Your task to perform on an android device: install app "Chime – Mobile Banking" Image 0: 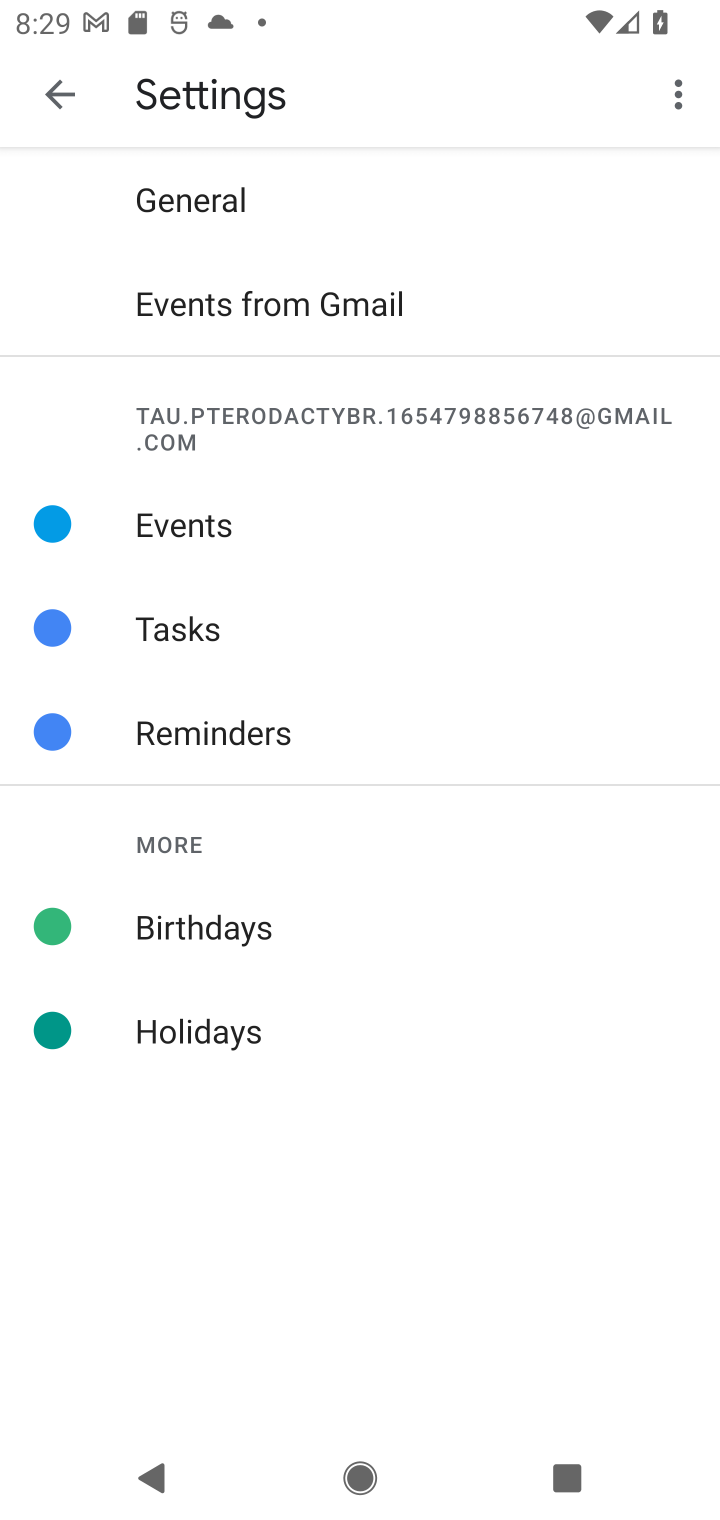
Step 0: press back button
Your task to perform on an android device: install app "Chime – Mobile Banking" Image 1: 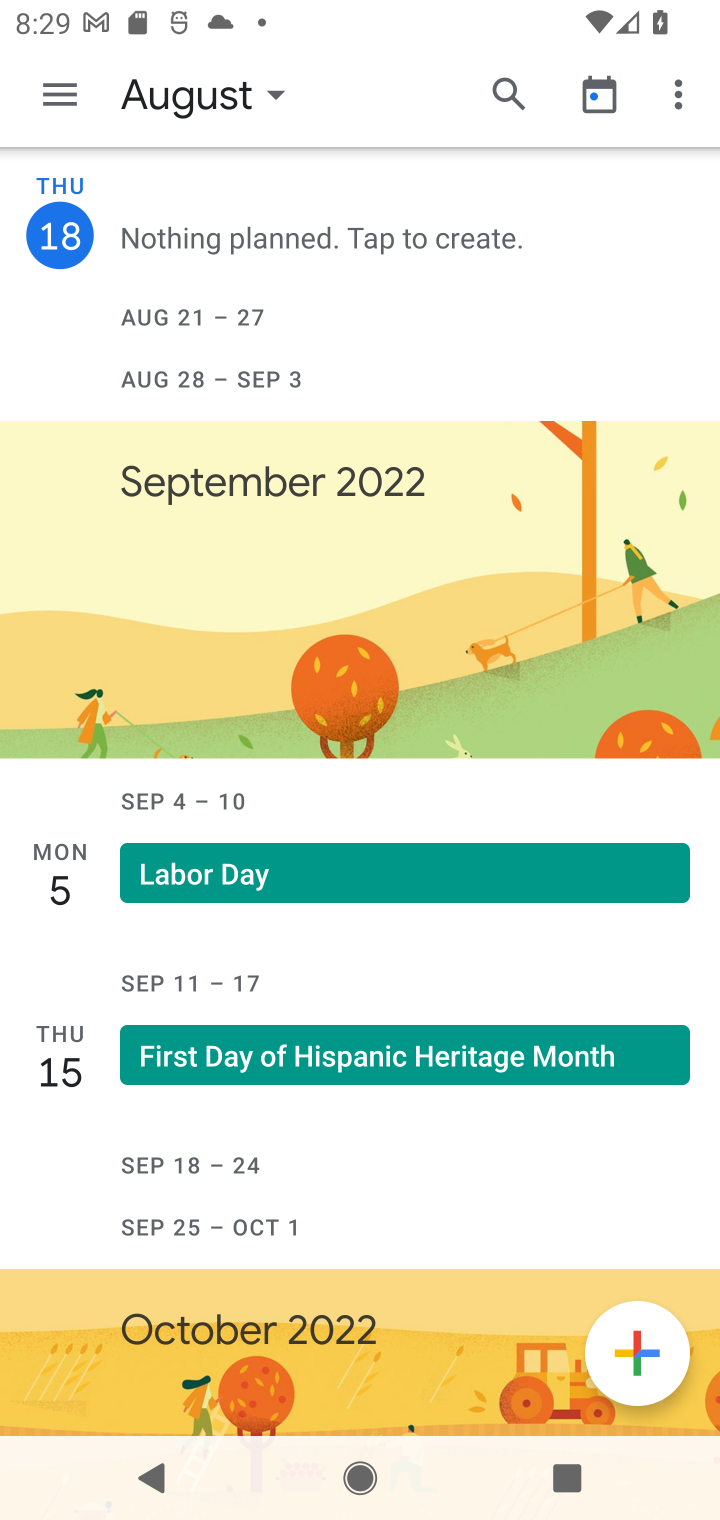
Step 1: press back button
Your task to perform on an android device: install app "Chime – Mobile Banking" Image 2: 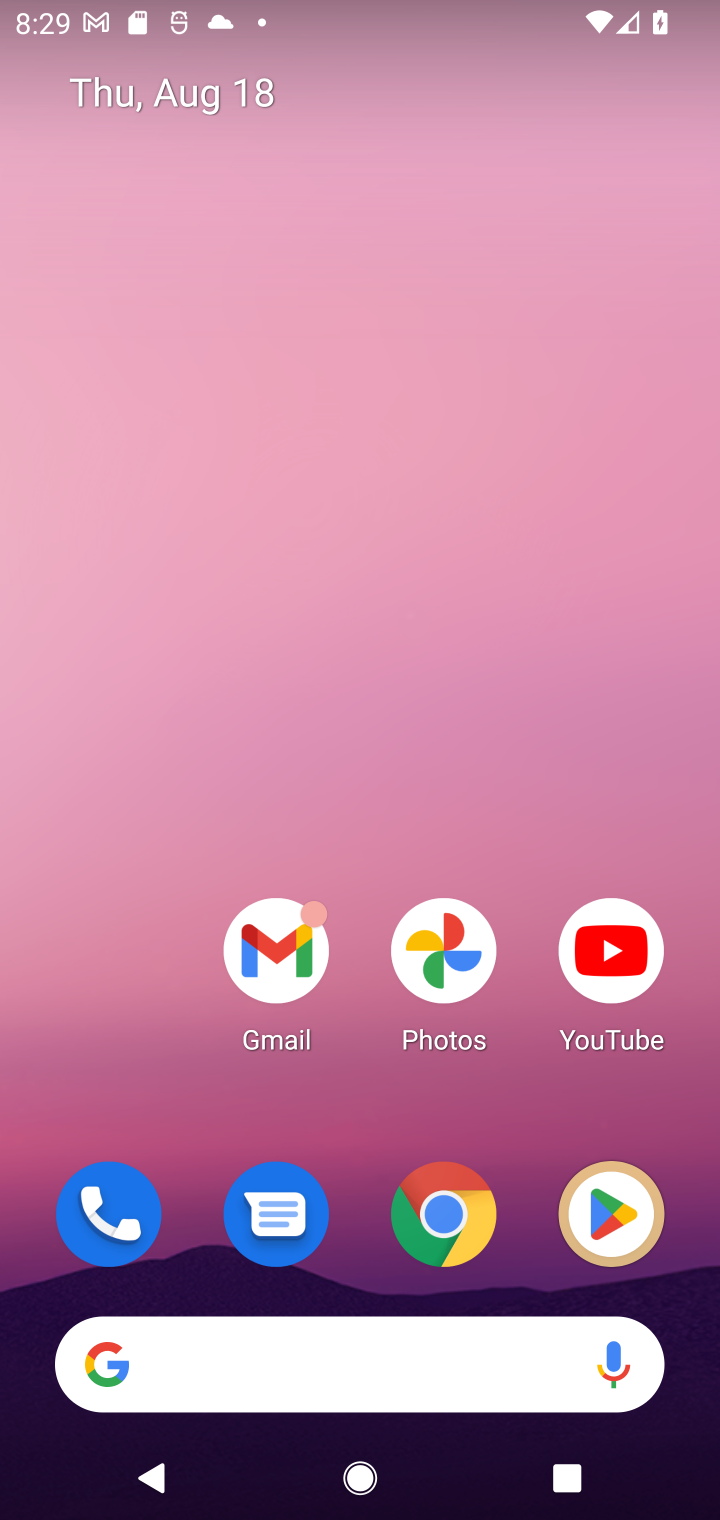
Step 2: click (629, 1239)
Your task to perform on an android device: install app "Chime – Mobile Banking" Image 3: 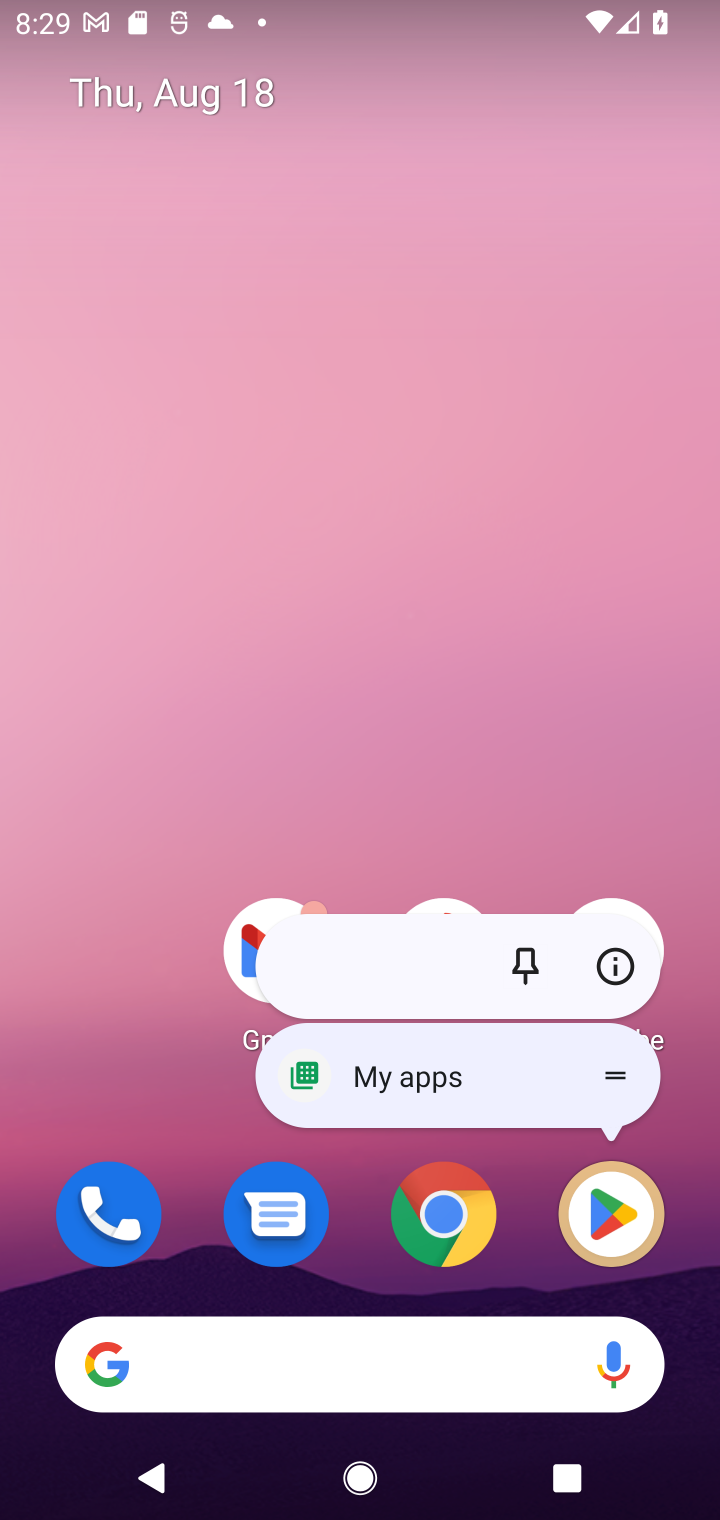
Step 3: click (615, 1217)
Your task to perform on an android device: install app "Chime – Mobile Banking" Image 4: 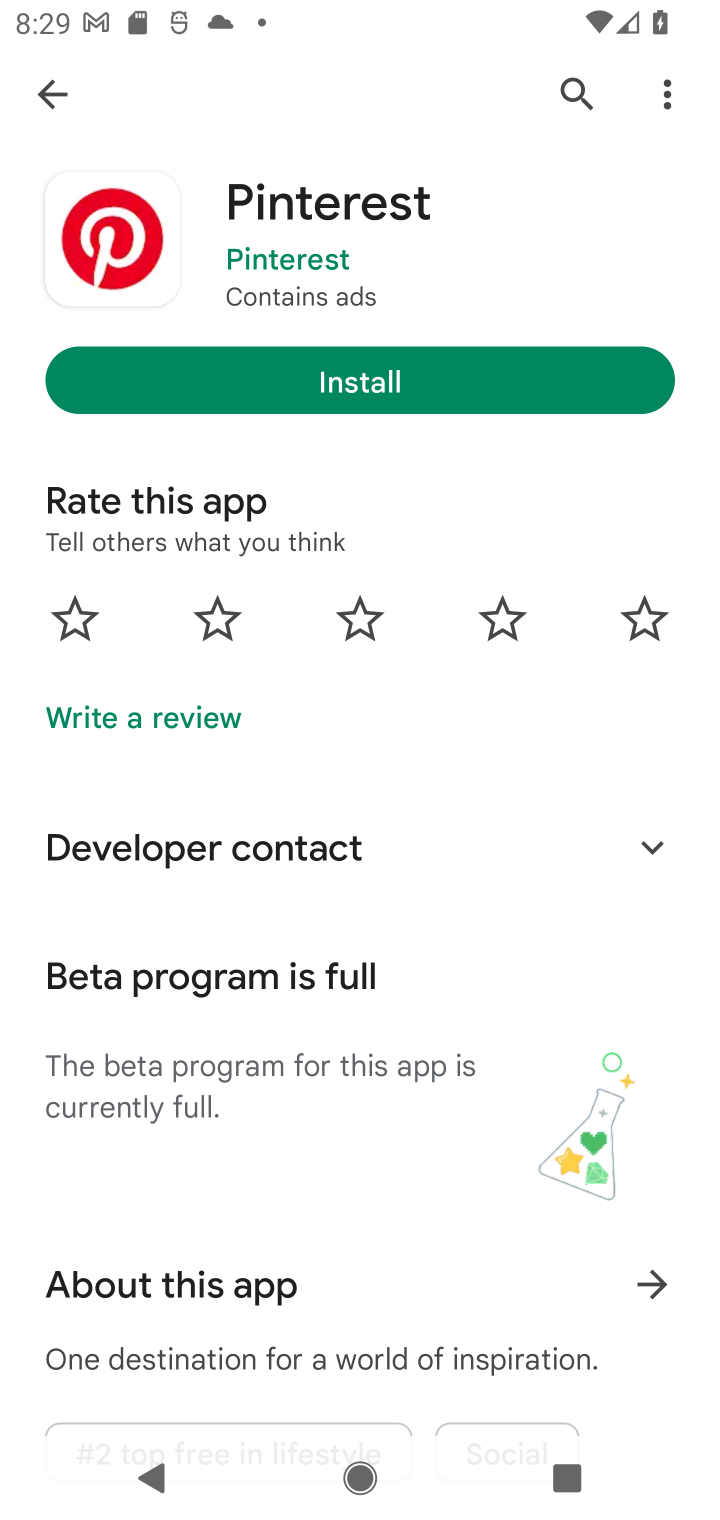
Step 4: click (572, 82)
Your task to perform on an android device: install app "Chime – Mobile Banking" Image 5: 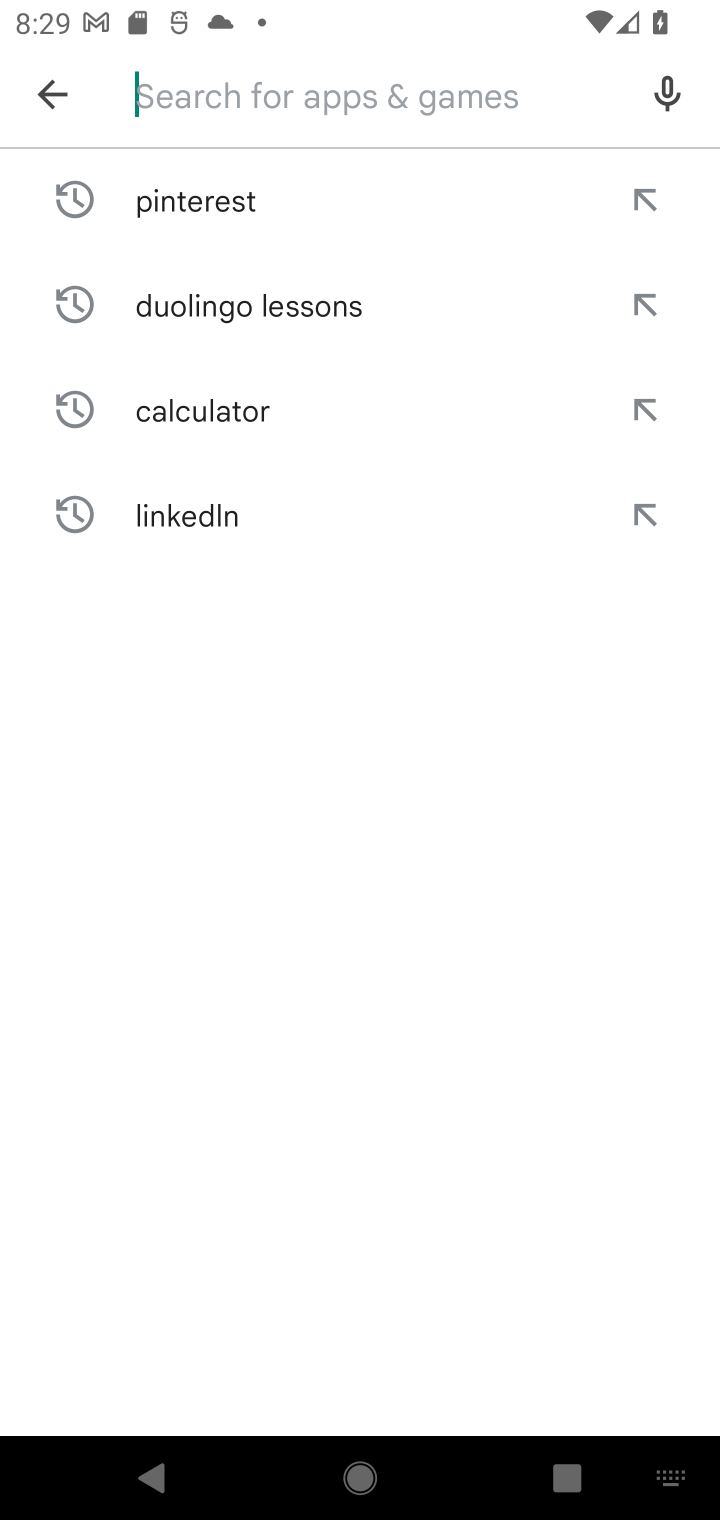
Step 5: click (285, 125)
Your task to perform on an android device: install app "Chime – Mobile Banking" Image 6: 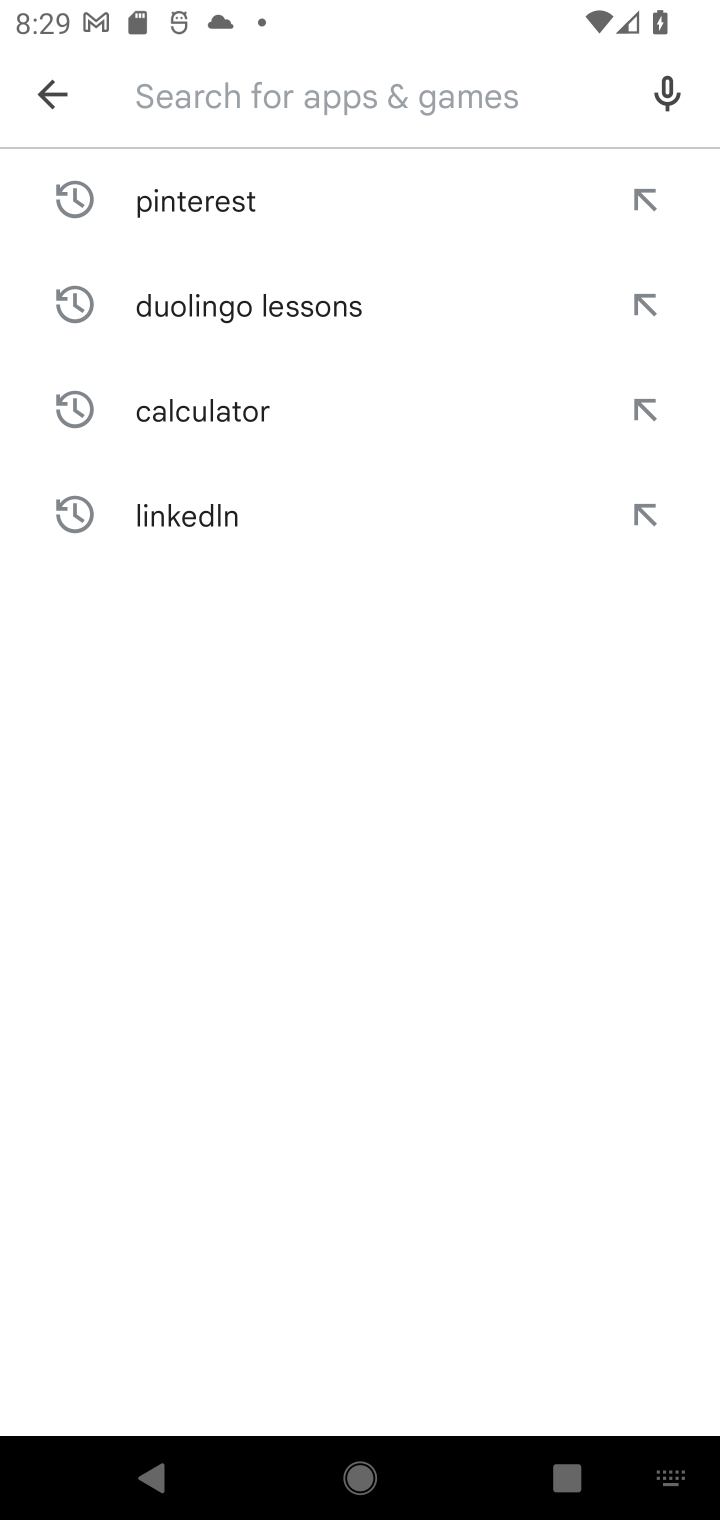
Step 6: type "chime"
Your task to perform on an android device: install app "Chime – Mobile Banking" Image 7: 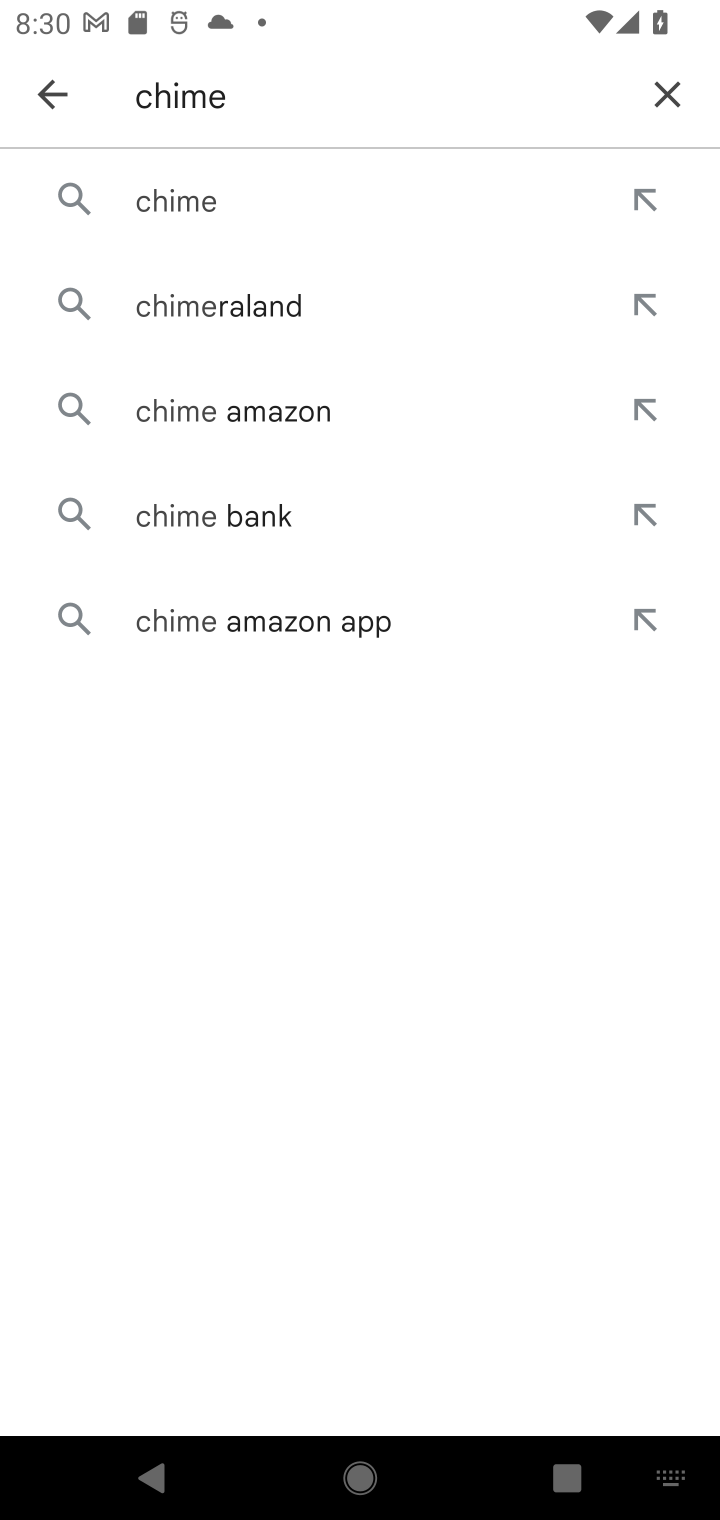
Step 7: click (224, 207)
Your task to perform on an android device: install app "Chime – Mobile Banking" Image 8: 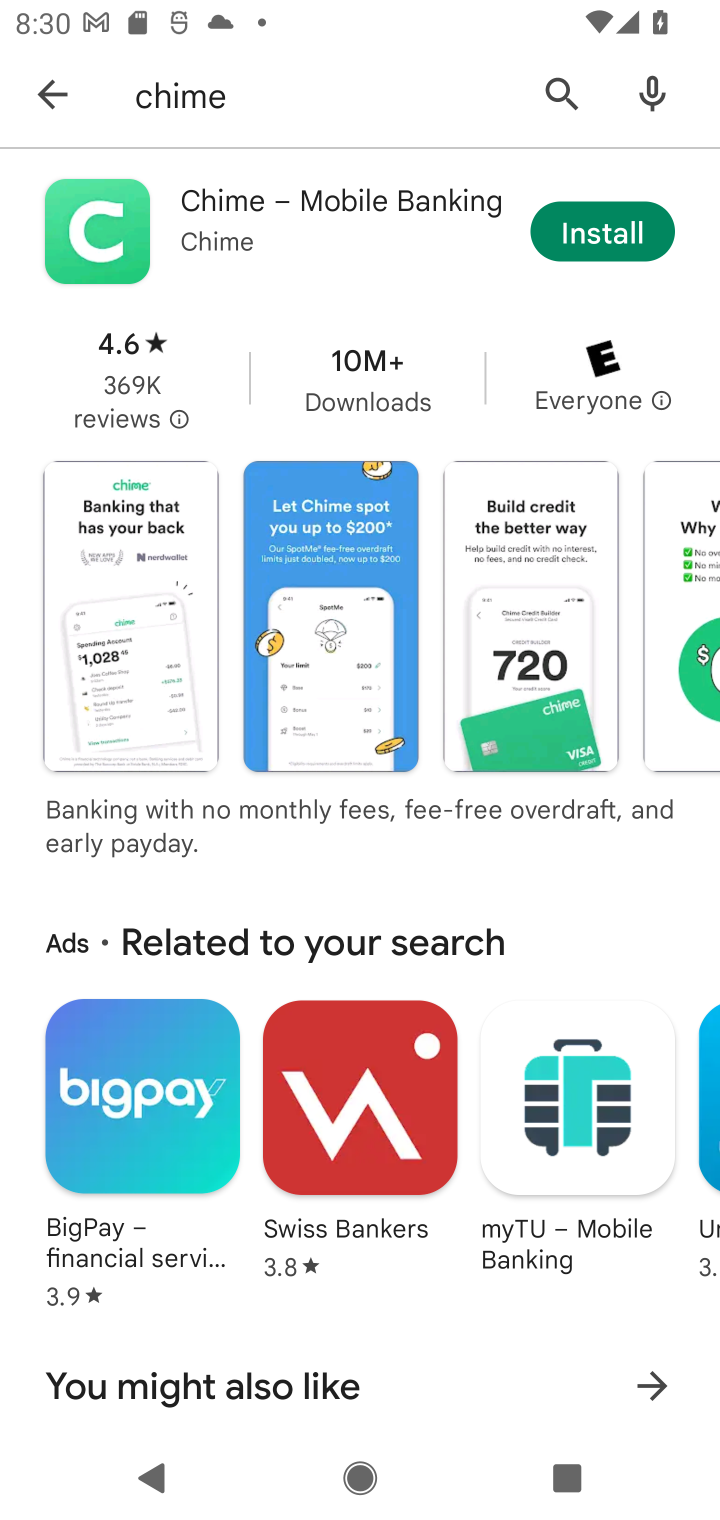
Step 8: click (562, 241)
Your task to perform on an android device: install app "Chime – Mobile Banking" Image 9: 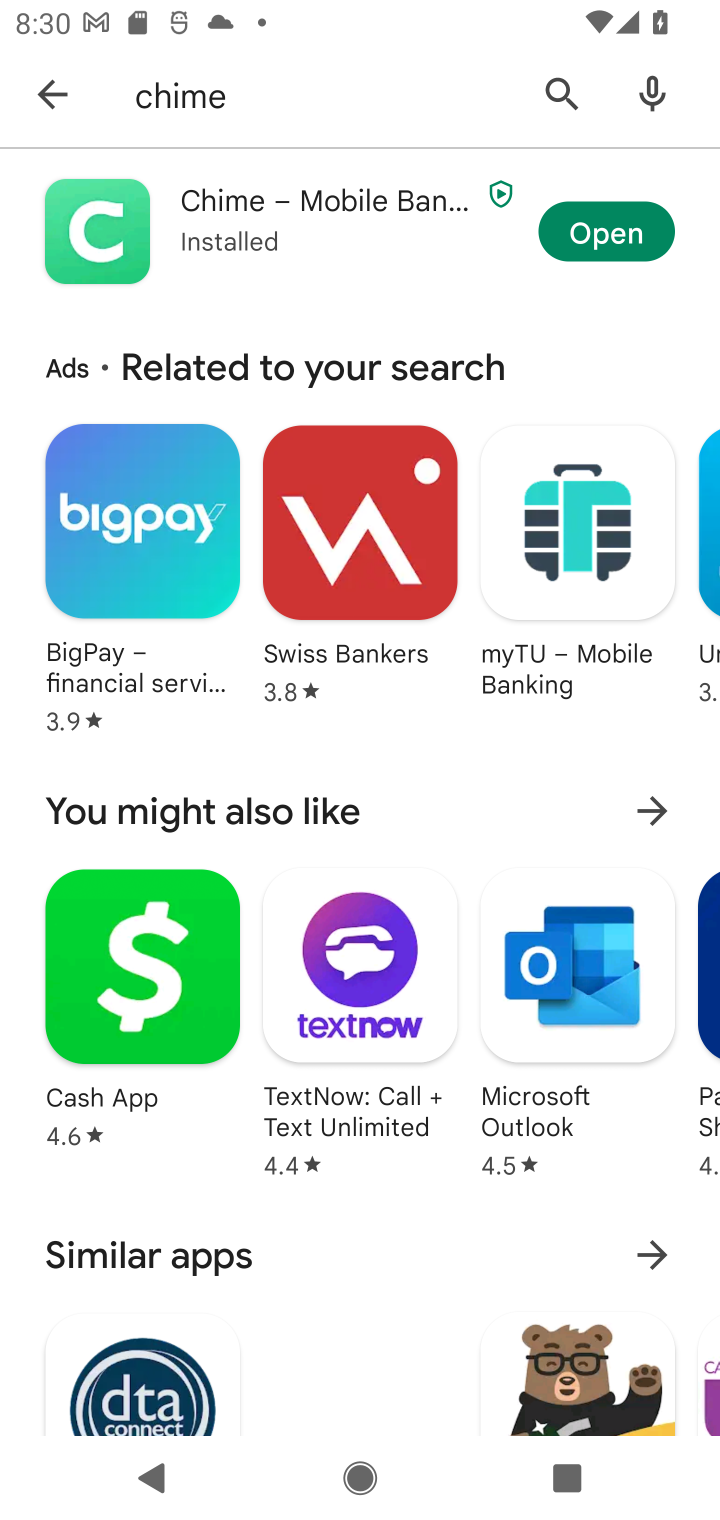
Step 9: task complete